Your task to perform on an android device: move an email to a new category in the gmail app Image 0: 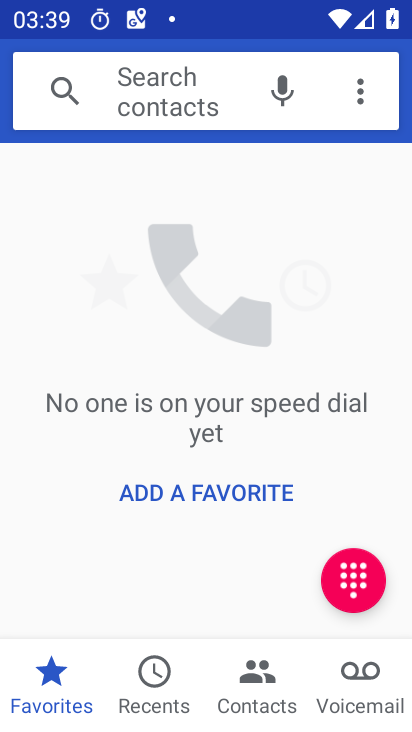
Step 0: press home button
Your task to perform on an android device: move an email to a new category in the gmail app Image 1: 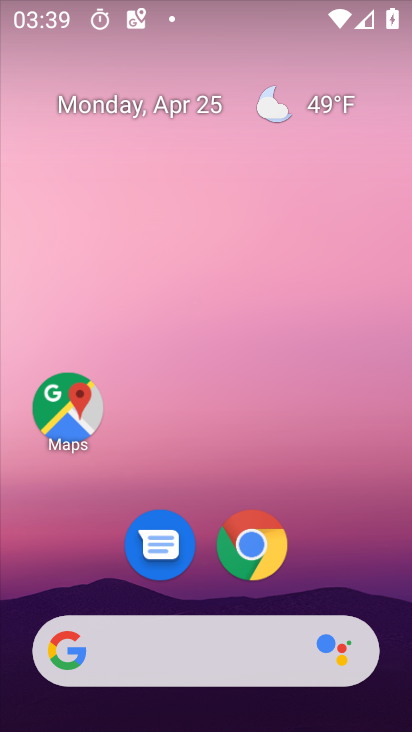
Step 1: drag from (205, 431) to (257, 5)
Your task to perform on an android device: move an email to a new category in the gmail app Image 2: 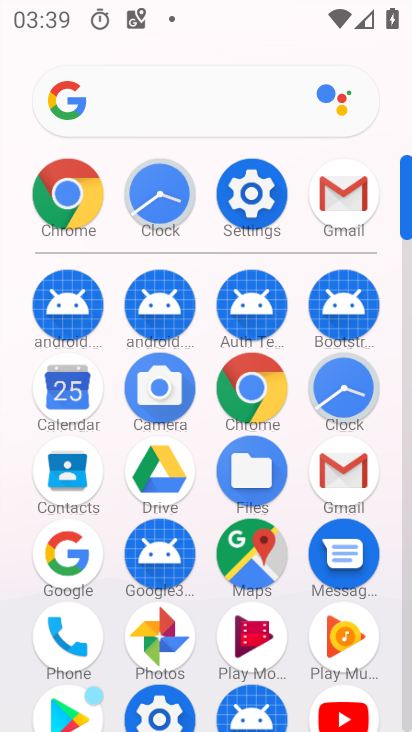
Step 2: click (357, 204)
Your task to perform on an android device: move an email to a new category in the gmail app Image 3: 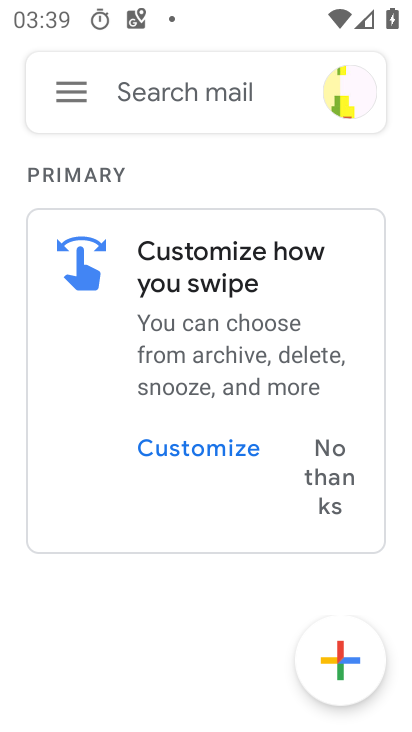
Step 3: click (76, 89)
Your task to perform on an android device: move an email to a new category in the gmail app Image 4: 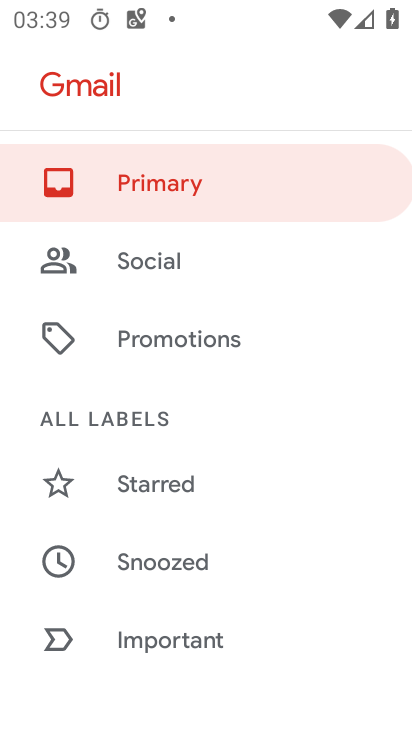
Step 4: drag from (220, 441) to (246, 224)
Your task to perform on an android device: move an email to a new category in the gmail app Image 5: 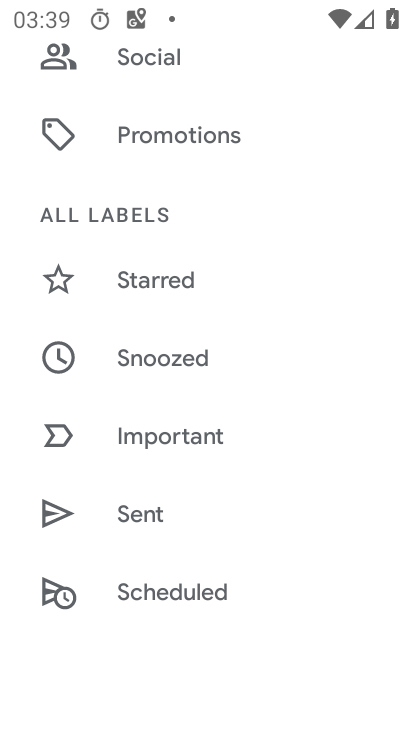
Step 5: drag from (239, 420) to (270, 226)
Your task to perform on an android device: move an email to a new category in the gmail app Image 6: 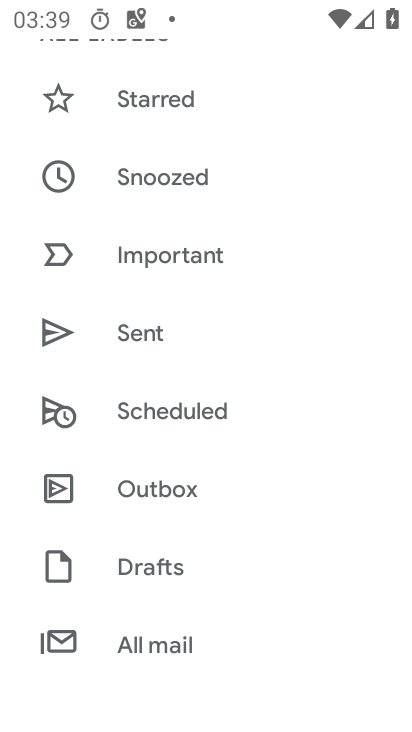
Step 6: click (161, 638)
Your task to perform on an android device: move an email to a new category in the gmail app Image 7: 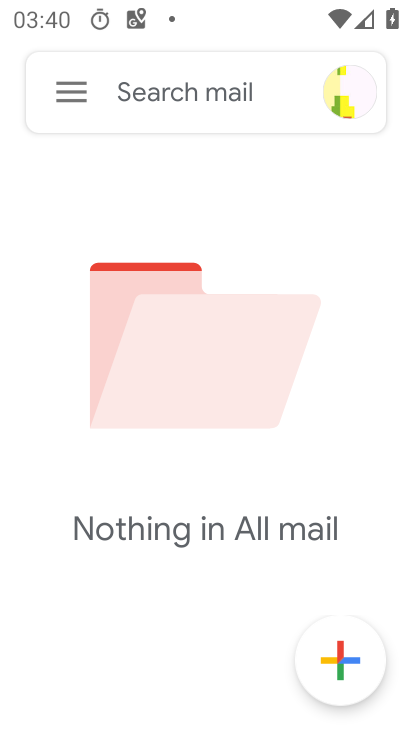
Step 7: task complete